Your task to perform on an android device: open chrome and create a bookmark for the current page Image 0: 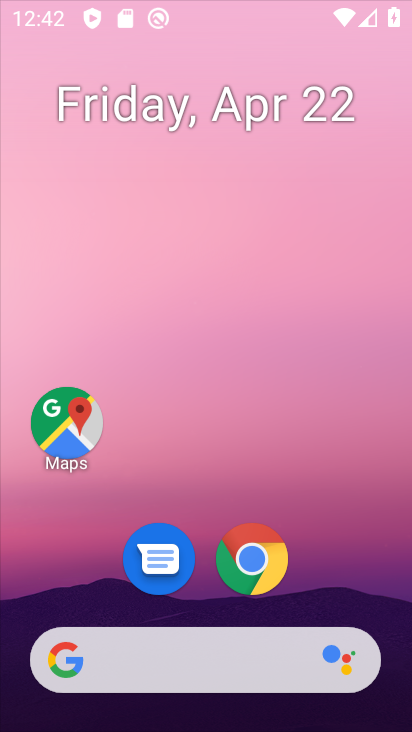
Step 0: drag from (351, 398) to (335, 91)
Your task to perform on an android device: open chrome and create a bookmark for the current page Image 1: 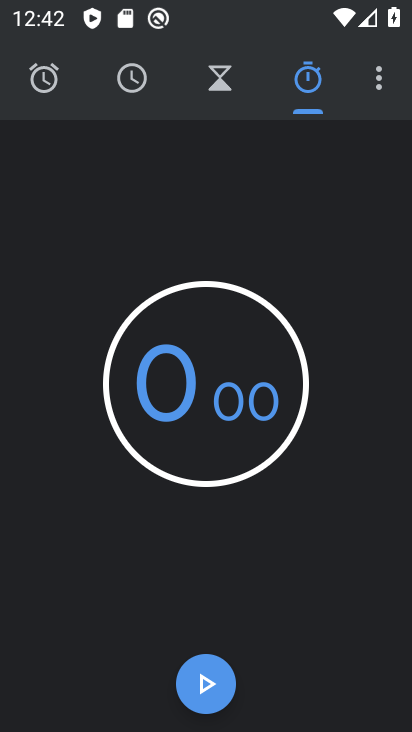
Step 1: press home button
Your task to perform on an android device: open chrome and create a bookmark for the current page Image 2: 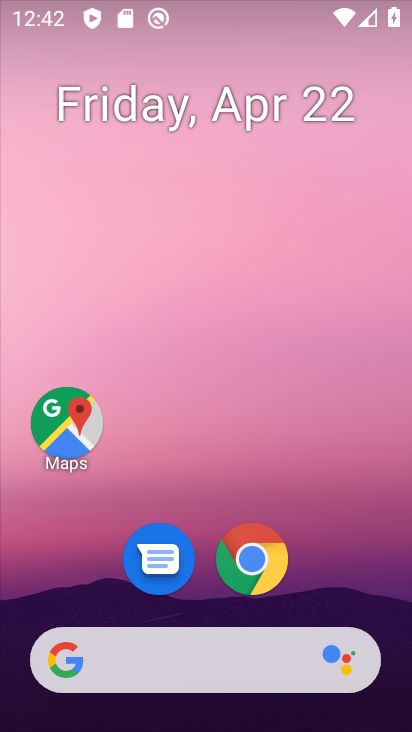
Step 2: drag from (382, 623) to (382, 23)
Your task to perform on an android device: open chrome and create a bookmark for the current page Image 3: 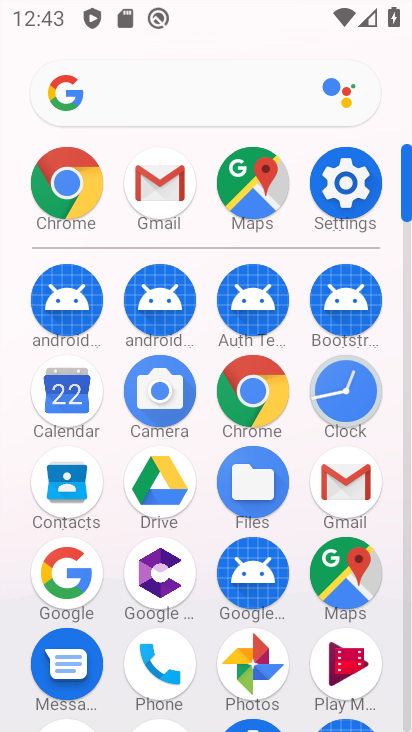
Step 3: click (266, 410)
Your task to perform on an android device: open chrome and create a bookmark for the current page Image 4: 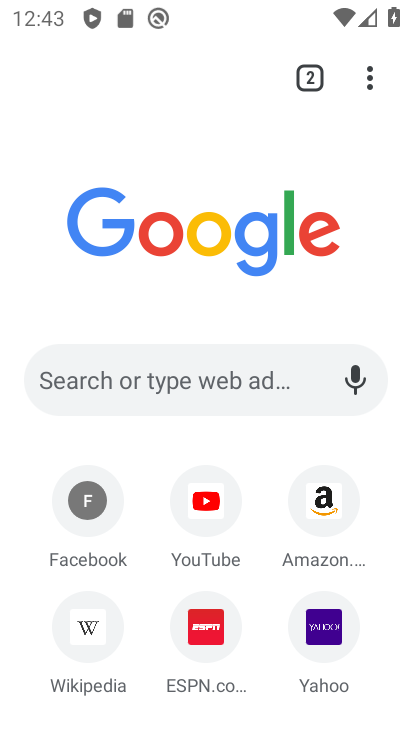
Step 4: click (368, 77)
Your task to perform on an android device: open chrome and create a bookmark for the current page Image 5: 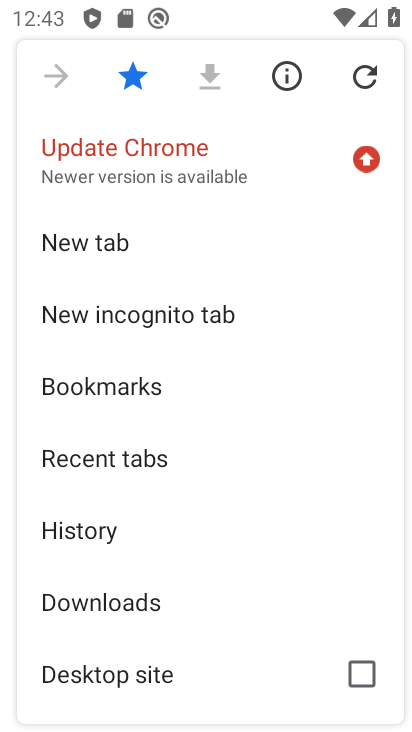
Step 5: task complete